Your task to perform on an android device: find snoozed emails in the gmail app Image 0: 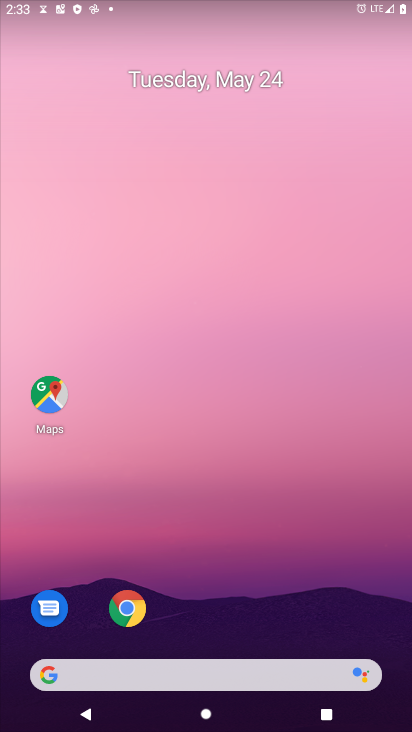
Step 0: drag from (247, 679) to (263, 154)
Your task to perform on an android device: find snoozed emails in the gmail app Image 1: 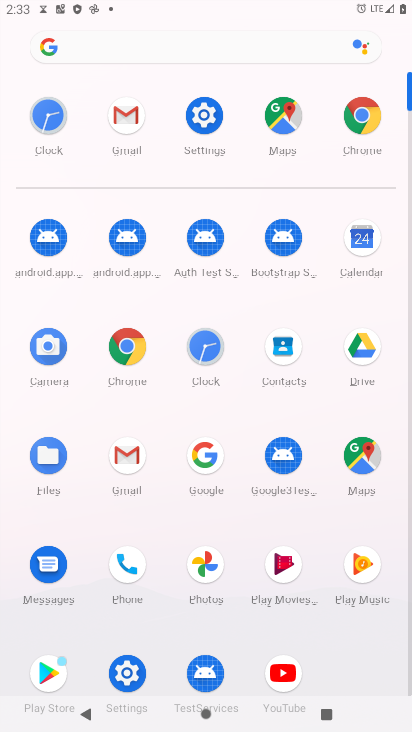
Step 1: click (128, 119)
Your task to perform on an android device: find snoozed emails in the gmail app Image 2: 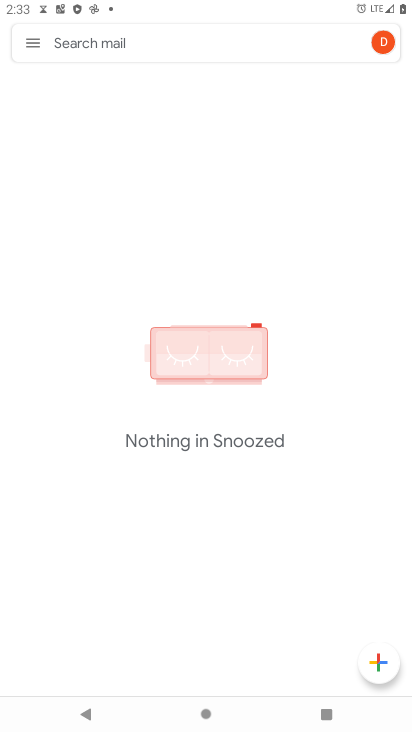
Step 2: click (39, 46)
Your task to perform on an android device: find snoozed emails in the gmail app Image 3: 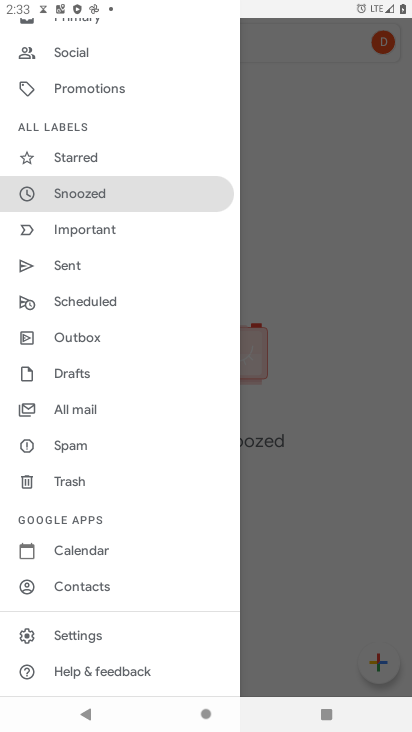
Step 3: click (75, 195)
Your task to perform on an android device: find snoozed emails in the gmail app Image 4: 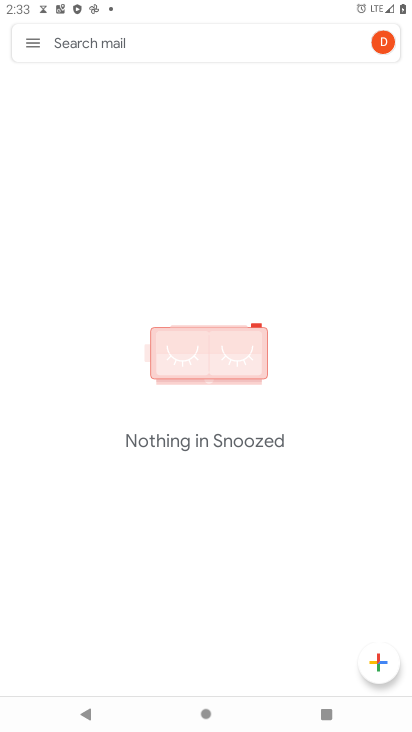
Step 4: task complete